Your task to perform on an android device: Open battery settings Image 0: 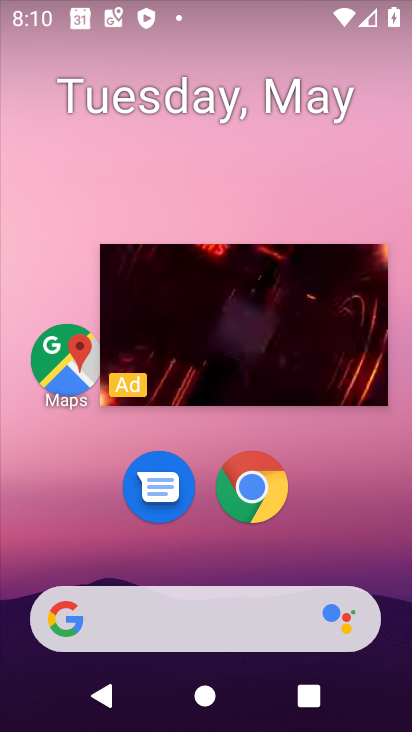
Step 0: drag from (330, 317) to (297, 720)
Your task to perform on an android device: Open battery settings Image 1: 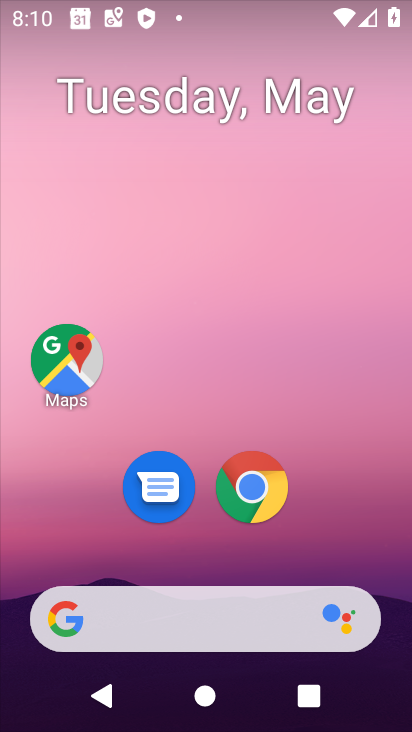
Step 1: drag from (376, 550) to (381, 180)
Your task to perform on an android device: Open battery settings Image 2: 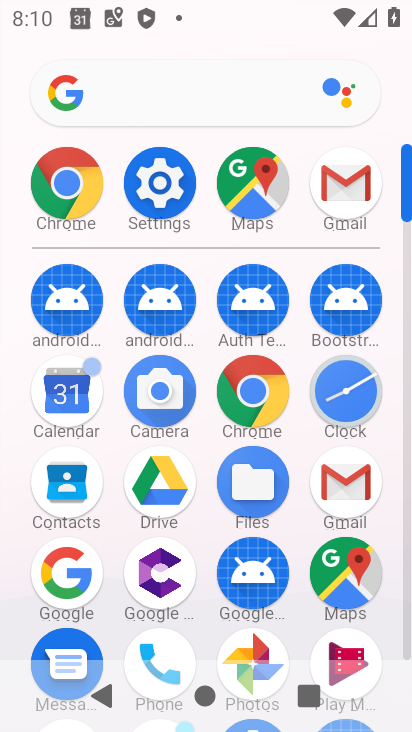
Step 2: click (171, 212)
Your task to perform on an android device: Open battery settings Image 3: 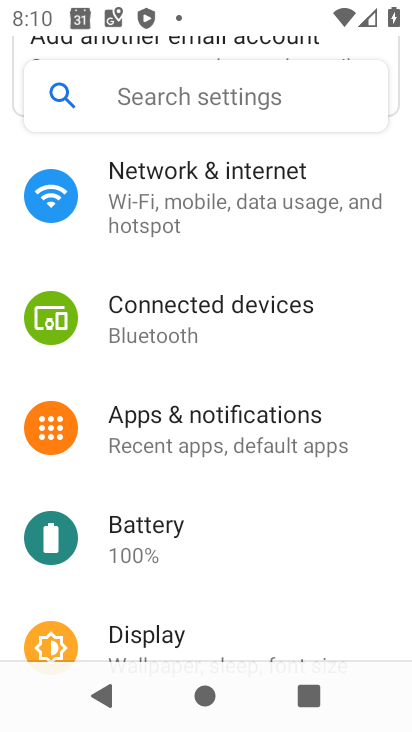
Step 3: drag from (356, 483) to (368, 349)
Your task to perform on an android device: Open battery settings Image 4: 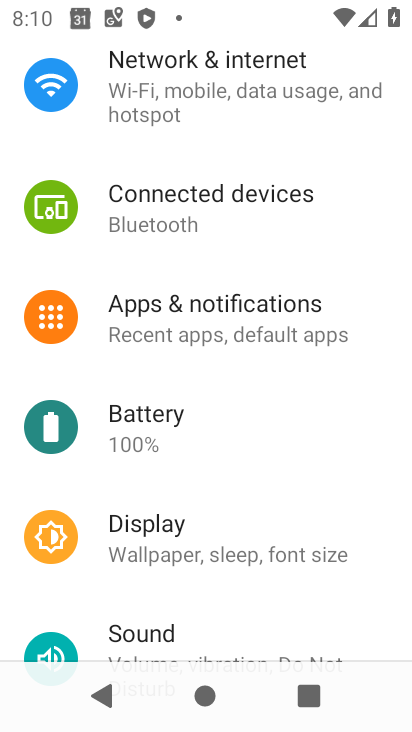
Step 4: drag from (363, 509) to (383, 408)
Your task to perform on an android device: Open battery settings Image 5: 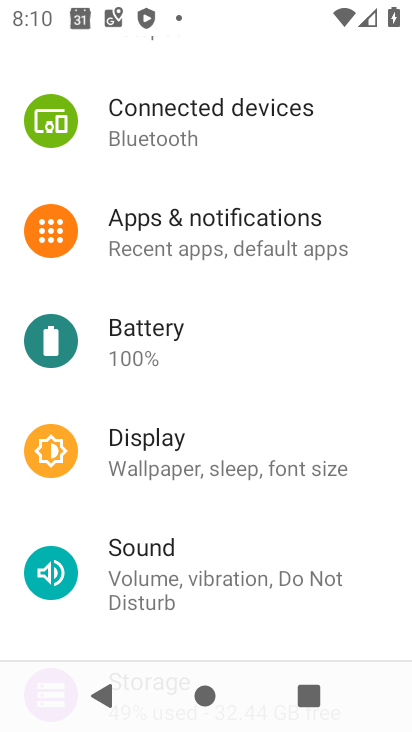
Step 5: drag from (370, 519) to (377, 423)
Your task to perform on an android device: Open battery settings Image 6: 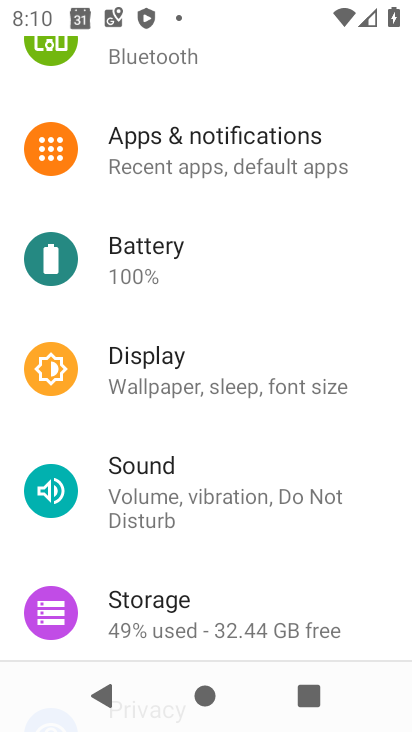
Step 6: click (225, 265)
Your task to perform on an android device: Open battery settings Image 7: 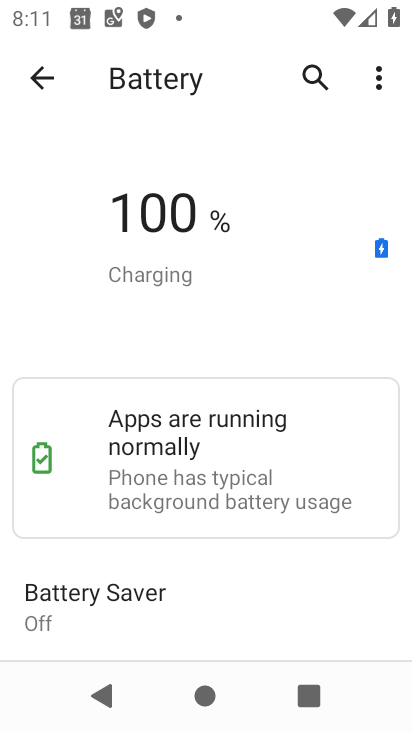
Step 7: task complete